Your task to perform on an android device: clear all cookies in the chrome app Image 0: 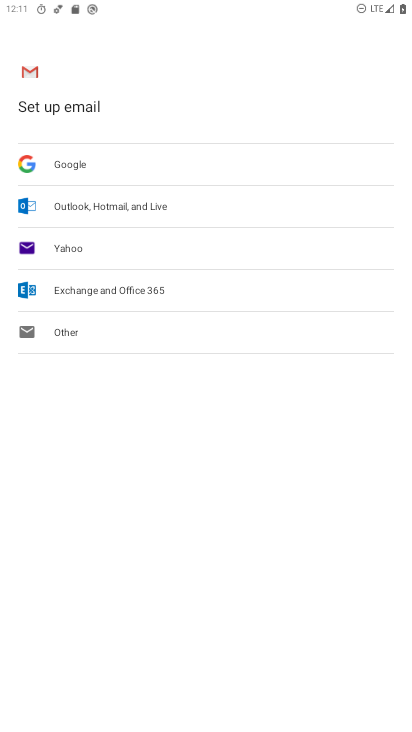
Step 0: press home button
Your task to perform on an android device: clear all cookies in the chrome app Image 1: 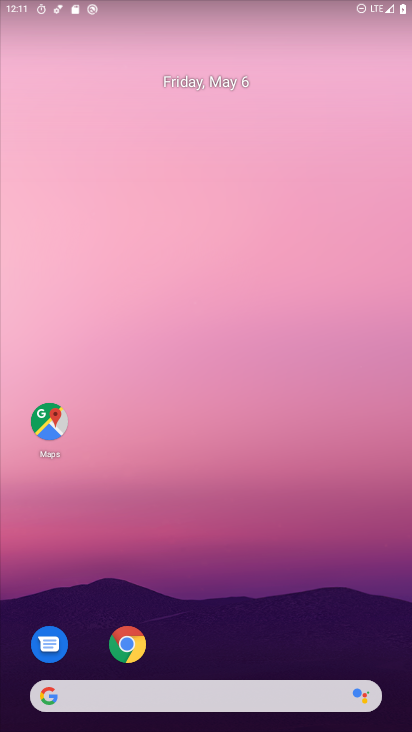
Step 1: drag from (357, 588) to (358, 58)
Your task to perform on an android device: clear all cookies in the chrome app Image 2: 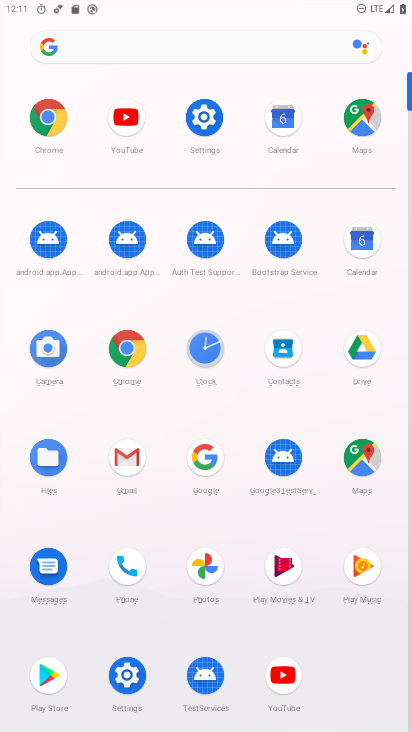
Step 2: click (137, 352)
Your task to perform on an android device: clear all cookies in the chrome app Image 3: 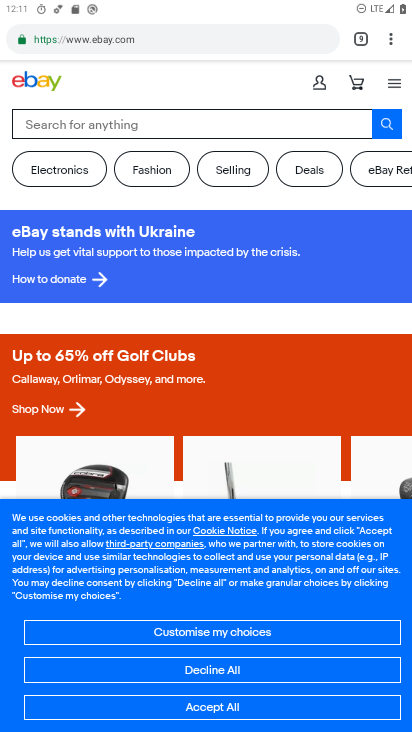
Step 3: drag from (397, 42) to (283, 220)
Your task to perform on an android device: clear all cookies in the chrome app Image 4: 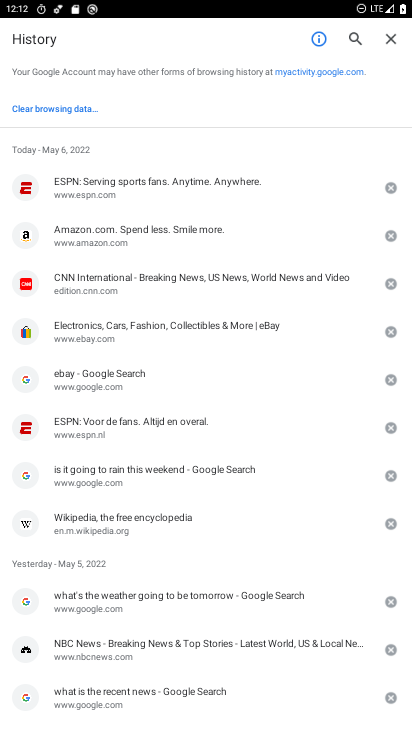
Step 4: click (49, 112)
Your task to perform on an android device: clear all cookies in the chrome app Image 5: 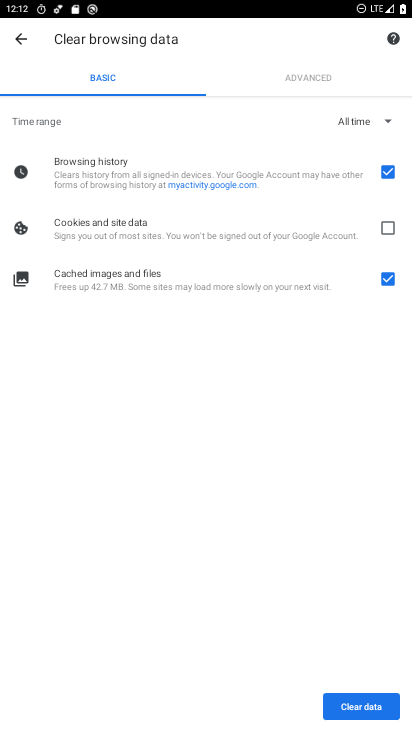
Step 5: click (388, 225)
Your task to perform on an android device: clear all cookies in the chrome app Image 6: 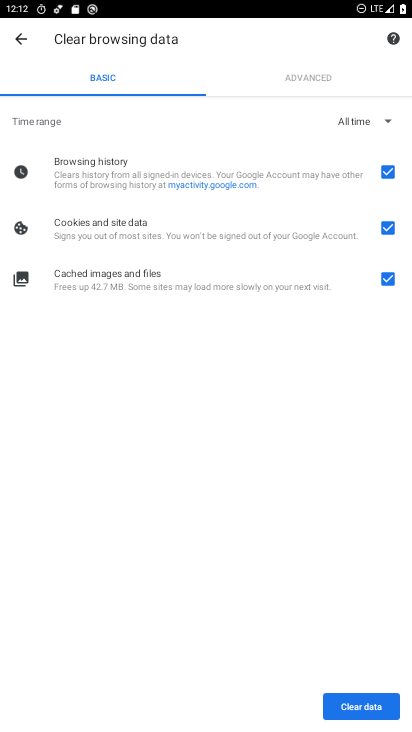
Step 6: click (384, 167)
Your task to perform on an android device: clear all cookies in the chrome app Image 7: 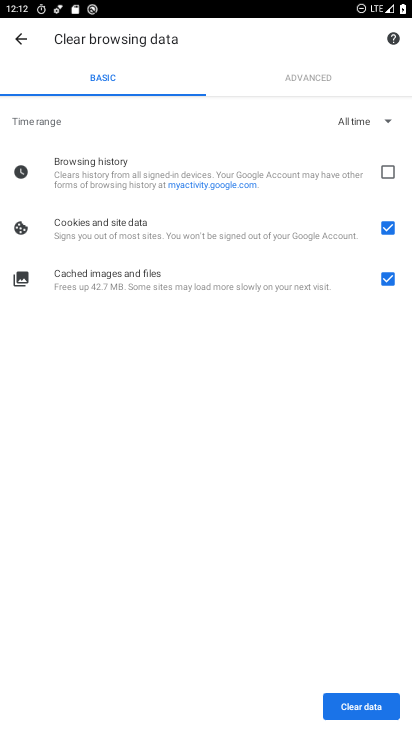
Step 7: click (381, 280)
Your task to perform on an android device: clear all cookies in the chrome app Image 8: 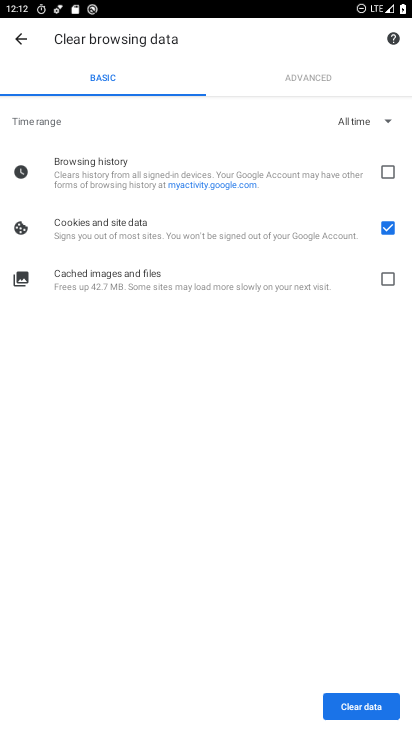
Step 8: click (358, 715)
Your task to perform on an android device: clear all cookies in the chrome app Image 9: 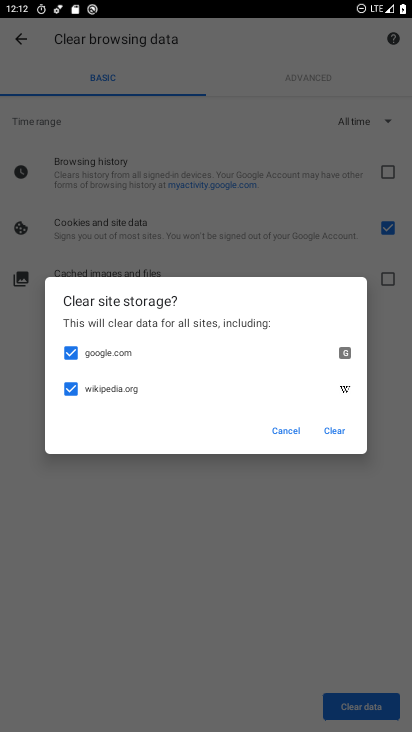
Step 9: click (330, 434)
Your task to perform on an android device: clear all cookies in the chrome app Image 10: 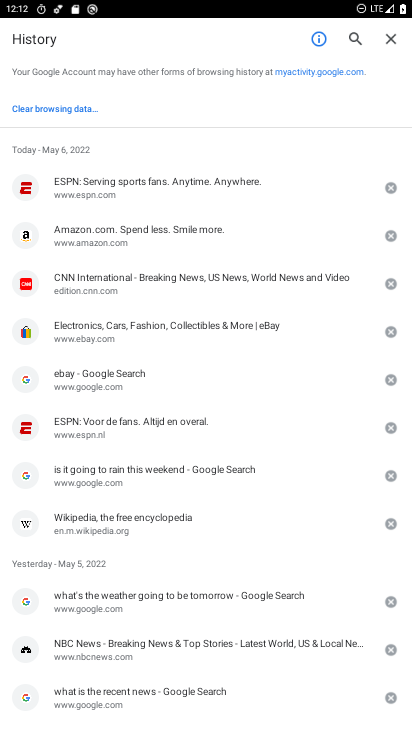
Step 10: task complete